Your task to perform on an android device: Open Chrome and go to settings Image 0: 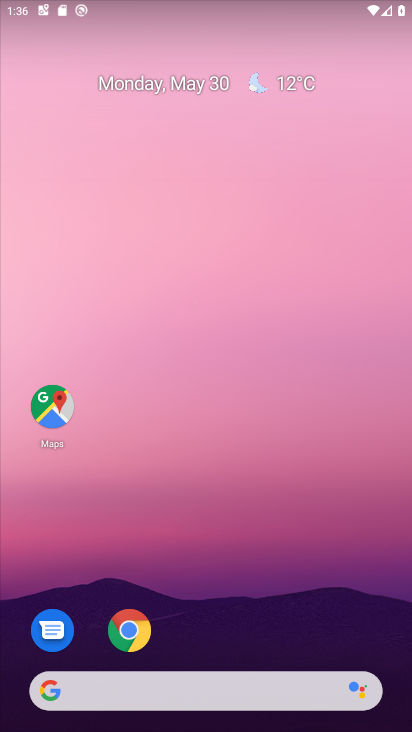
Step 0: click (124, 634)
Your task to perform on an android device: Open Chrome and go to settings Image 1: 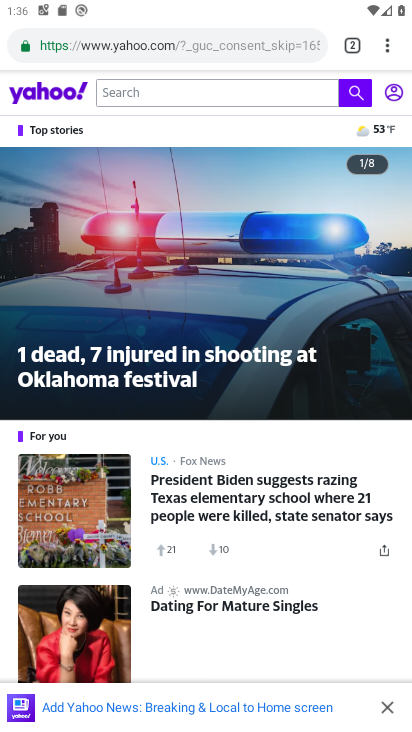
Step 1: task complete